Your task to perform on an android device: remove spam from my inbox in the gmail app Image 0: 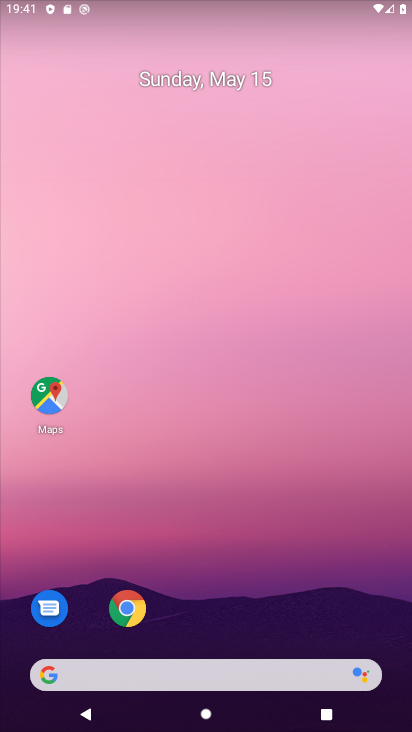
Step 0: drag from (226, 582) to (269, 181)
Your task to perform on an android device: remove spam from my inbox in the gmail app Image 1: 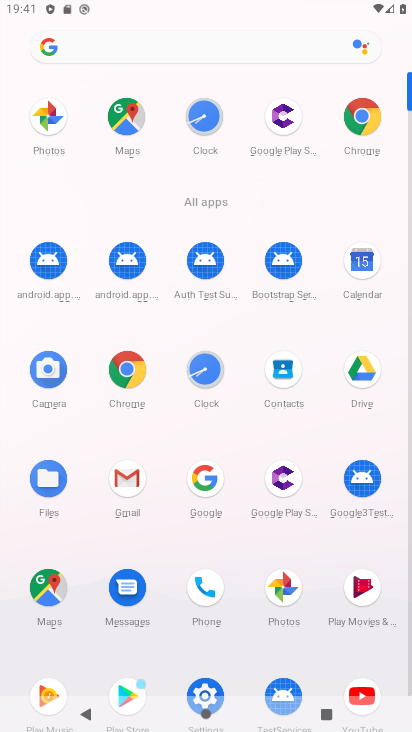
Step 1: click (124, 482)
Your task to perform on an android device: remove spam from my inbox in the gmail app Image 2: 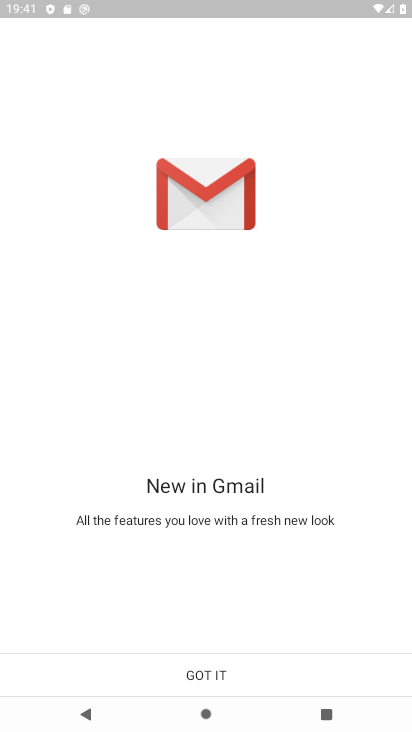
Step 2: click (207, 673)
Your task to perform on an android device: remove spam from my inbox in the gmail app Image 3: 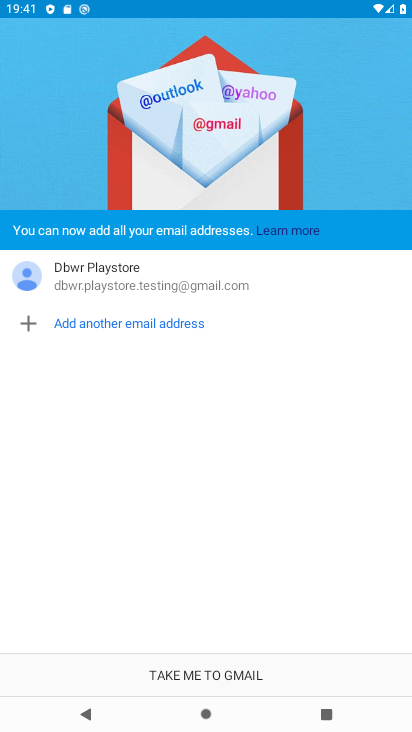
Step 3: click (207, 673)
Your task to perform on an android device: remove spam from my inbox in the gmail app Image 4: 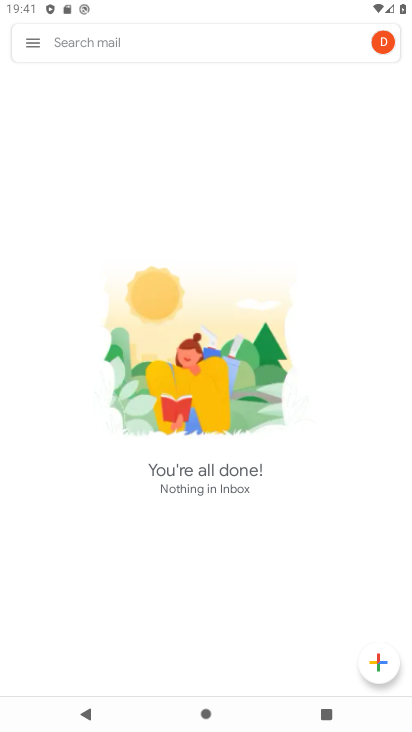
Step 4: click (30, 42)
Your task to perform on an android device: remove spam from my inbox in the gmail app Image 5: 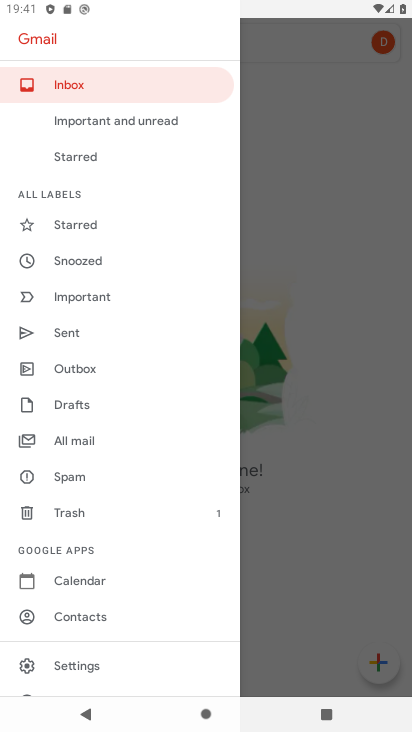
Step 5: click (153, 80)
Your task to perform on an android device: remove spam from my inbox in the gmail app Image 6: 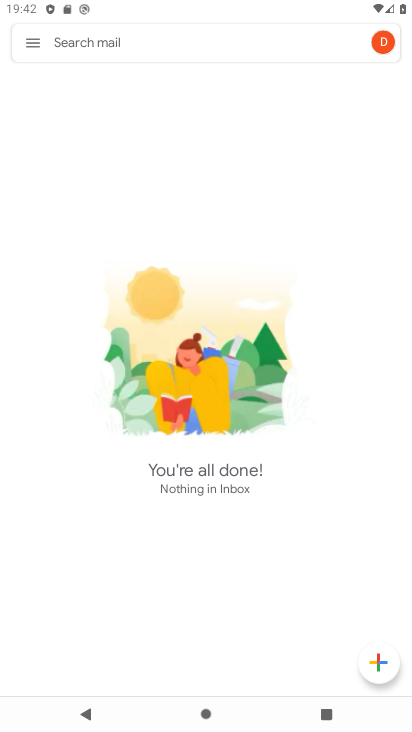
Step 6: task complete